Your task to perform on an android device: Go to internet settings Image 0: 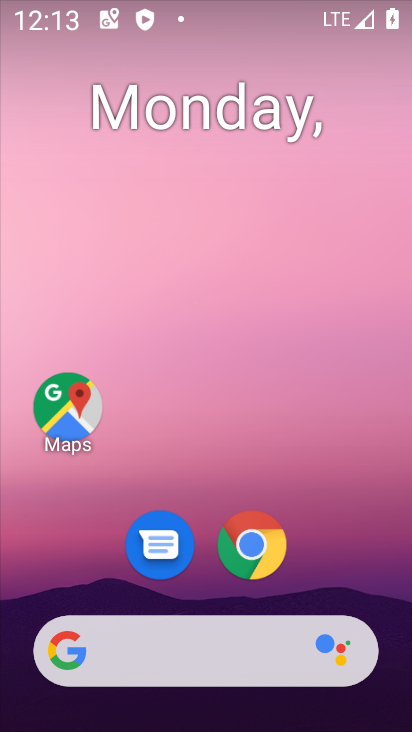
Step 0: drag from (384, 608) to (371, 189)
Your task to perform on an android device: Go to internet settings Image 1: 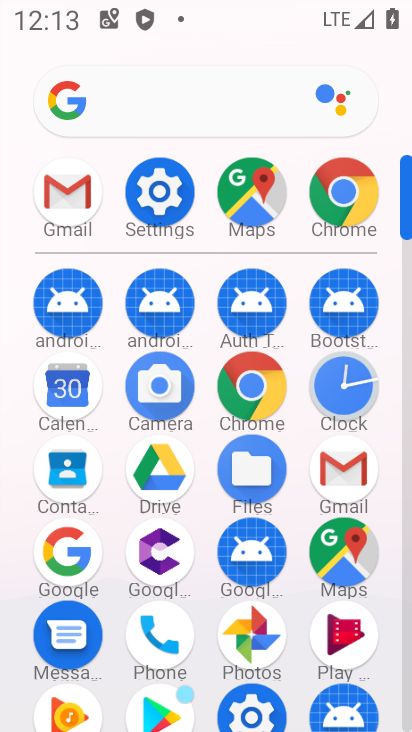
Step 1: click (163, 209)
Your task to perform on an android device: Go to internet settings Image 2: 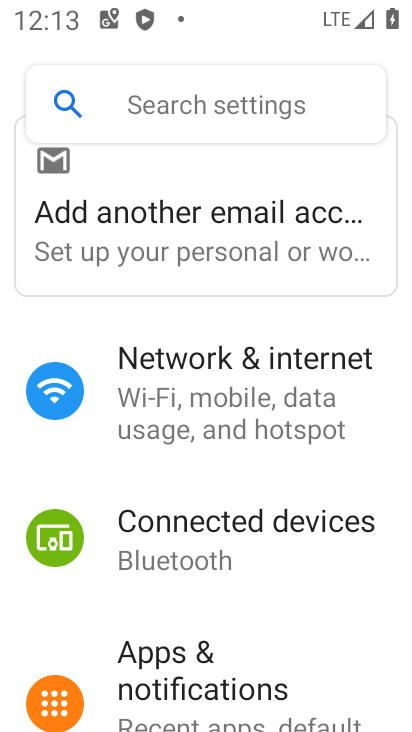
Step 2: click (281, 396)
Your task to perform on an android device: Go to internet settings Image 3: 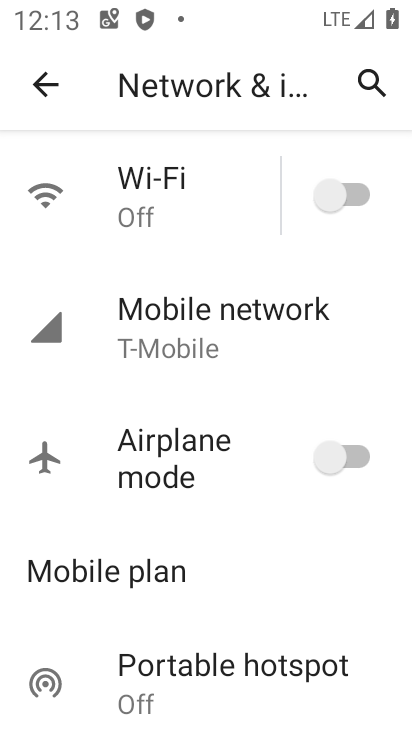
Step 3: task complete